Your task to perform on an android device: open app "Instagram" (install if not already installed), go to login, and select forgot password Image 0: 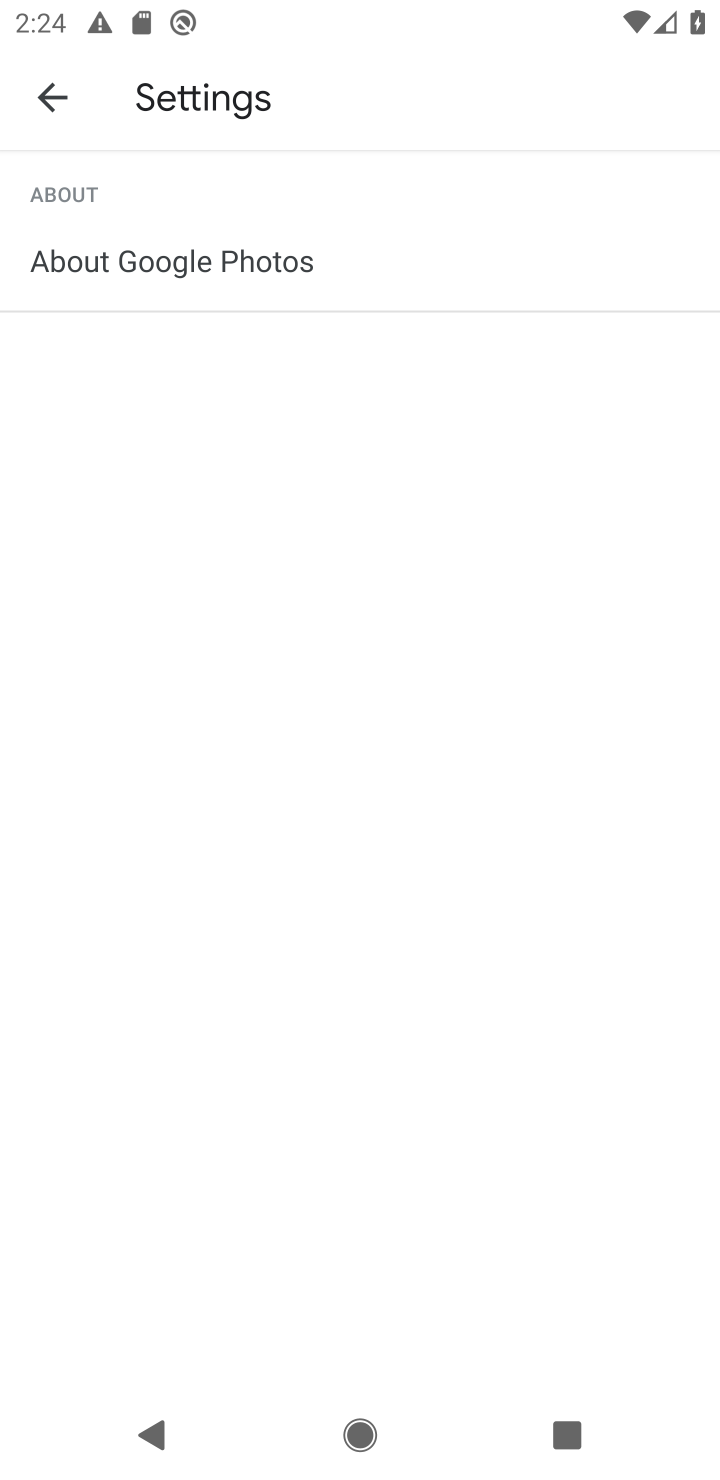
Step 0: press home button
Your task to perform on an android device: open app "Instagram" (install if not already installed), go to login, and select forgot password Image 1: 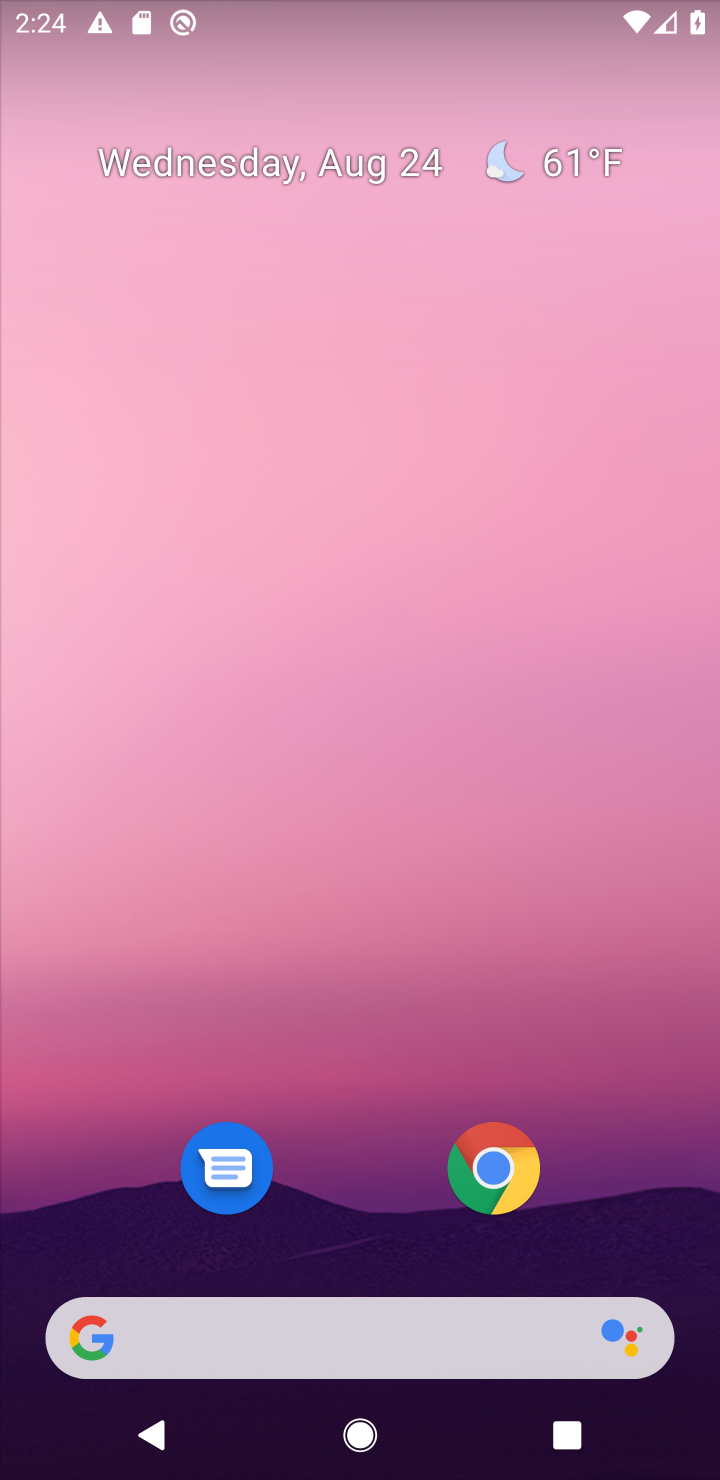
Step 1: drag from (611, 808) to (568, 175)
Your task to perform on an android device: open app "Instagram" (install if not already installed), go to login, and select forgot password Image 2: 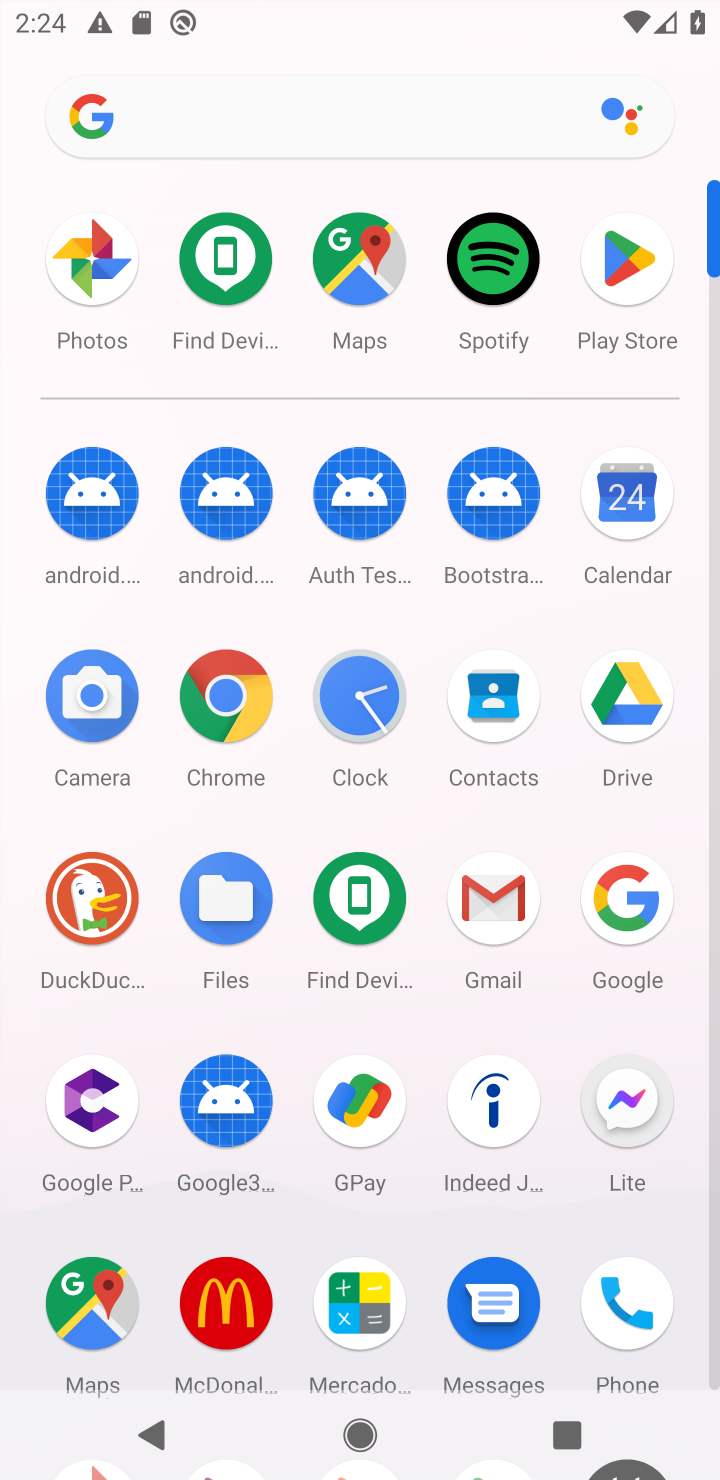
Step 2: click (719, 1346)
Your task to perform on an android device: open app "Instagram" (install if not already installed), go to login, and select forgot password Image 3: 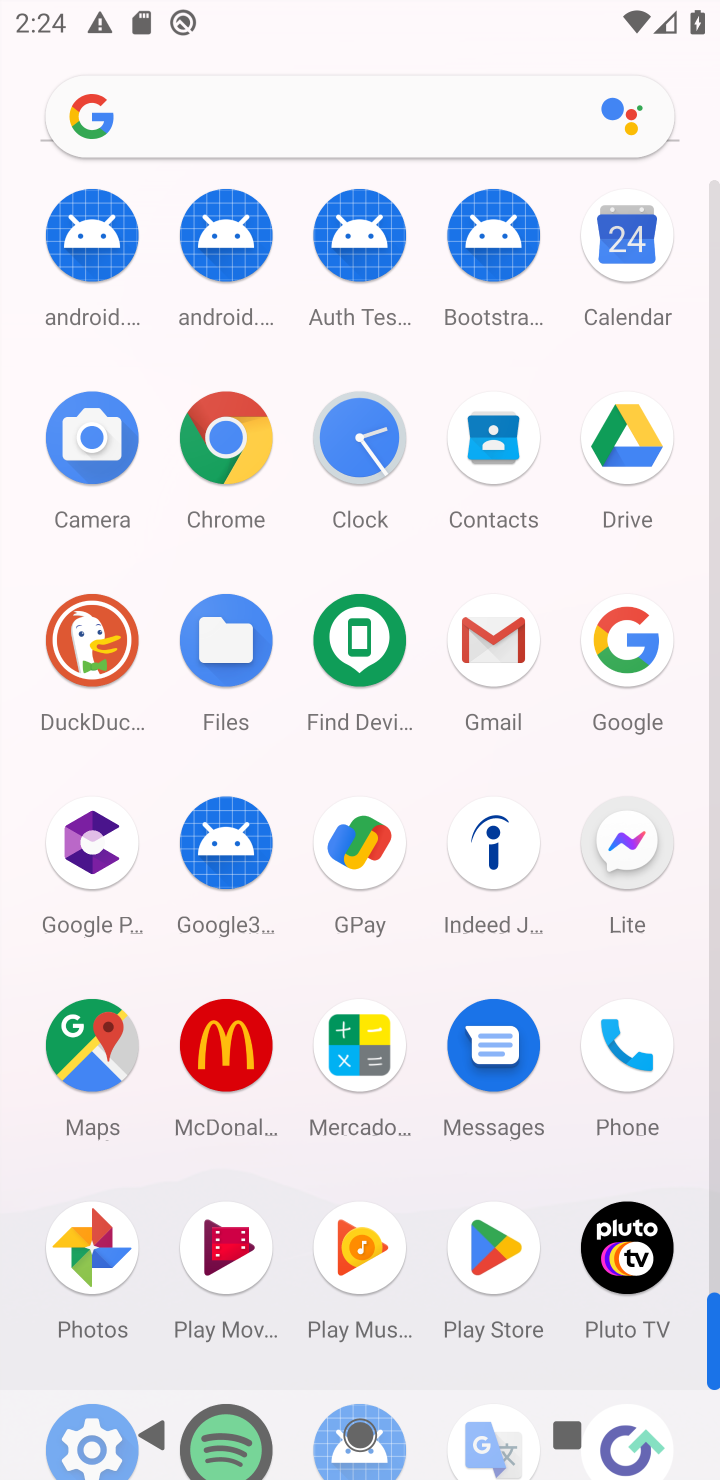
Step 3: click (498, 1247)
Your task to perform on an android device: open app "Instagram" (install if not already installed), go to login, and select forgot password Image 4: 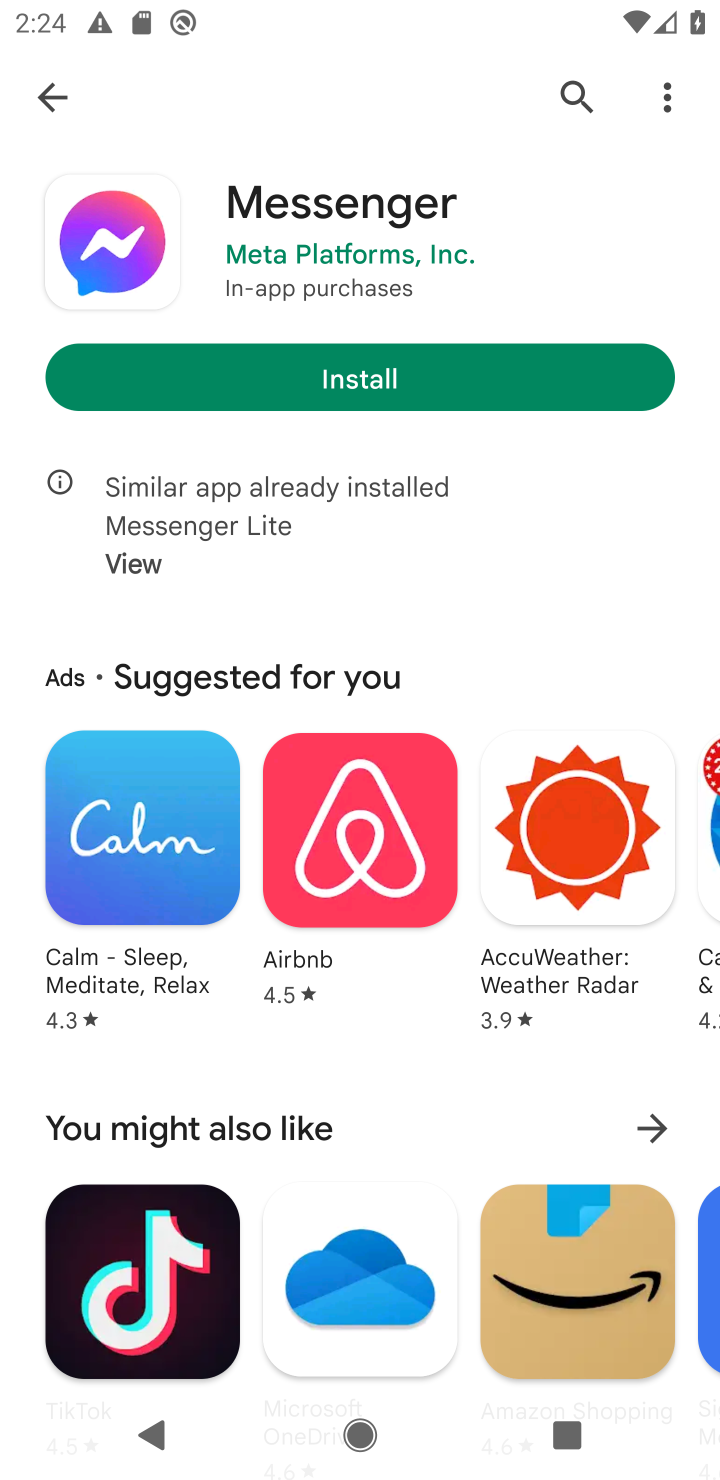
Step 4: click (572, 79)
Your task to perform on an android device: open app "Instagram" (install if not already installed), go to login, and select forgot password Image 5: 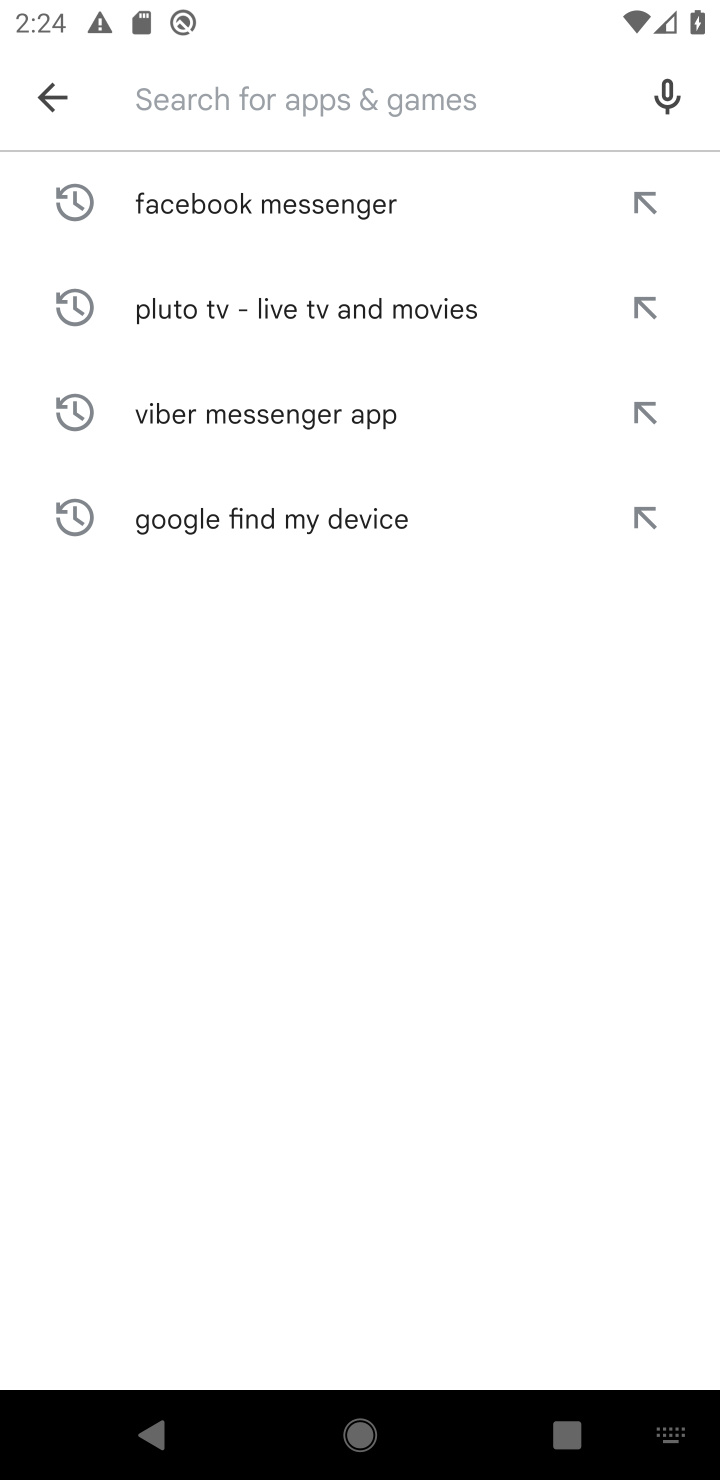
Step 5: type "Instagram"
Your task to perform on an android device: open app "Instagram" (install if not already installed), go to login, and select forgot password Image 6: 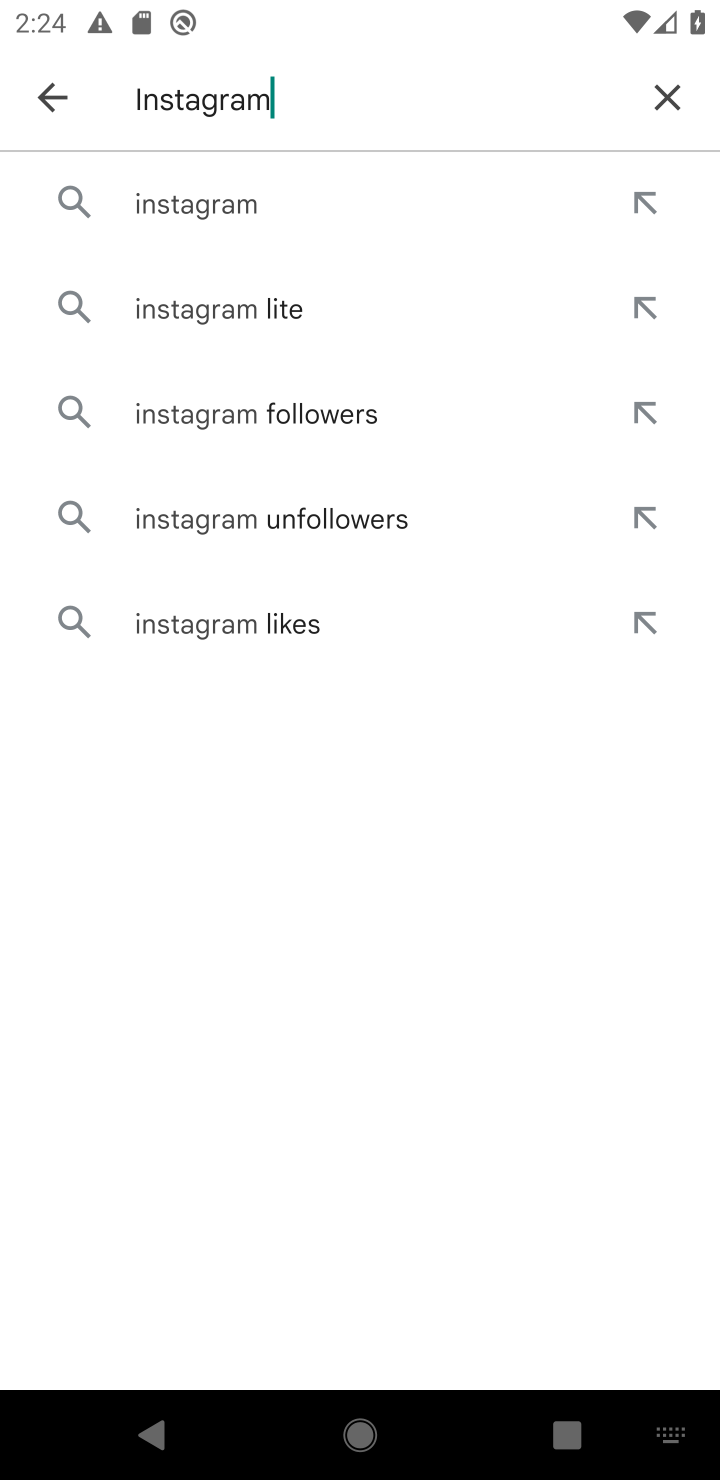
Step 6: click (183, 221)
Your task to perform on an android device: open app "Instagram" (install if not already installed), go to login, and select forgot password Image 7: 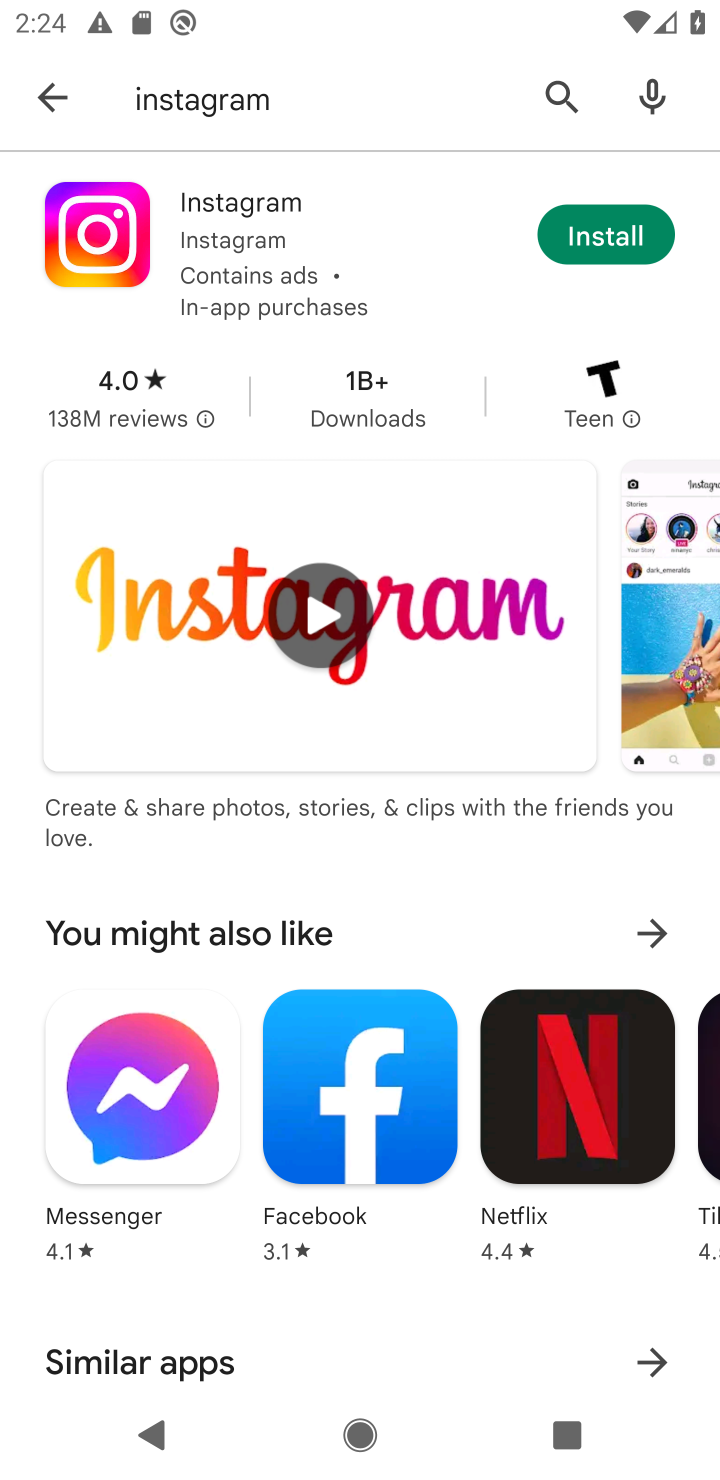
Step 7: click (170, 220)
Your task to perform on an android device: open app "Instagram" (install if not already installed), go to login, and select forgot password Image 8: 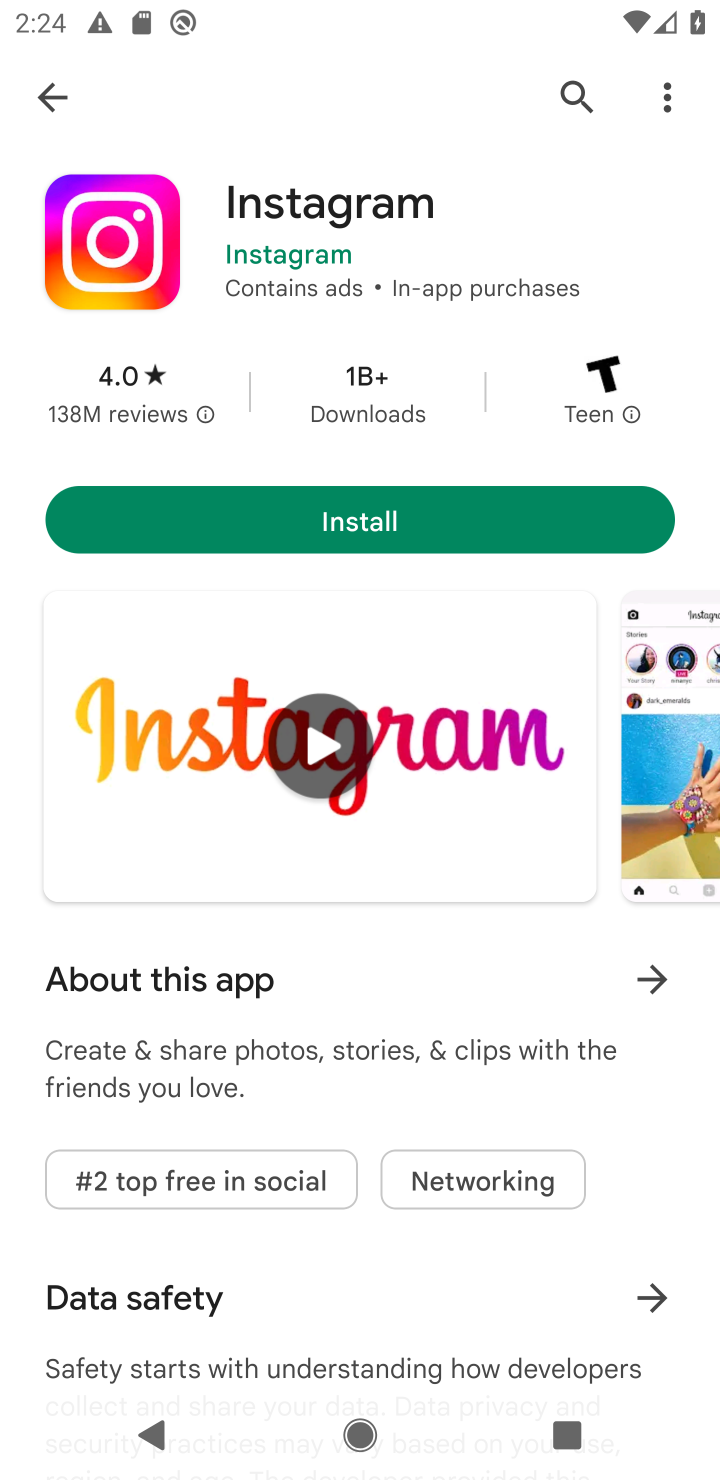
Step 8: click (359, 531)
Your task to perform on an android device: open app "Instagram" (install if not already installed), go to login, and select forgot password Image 9: 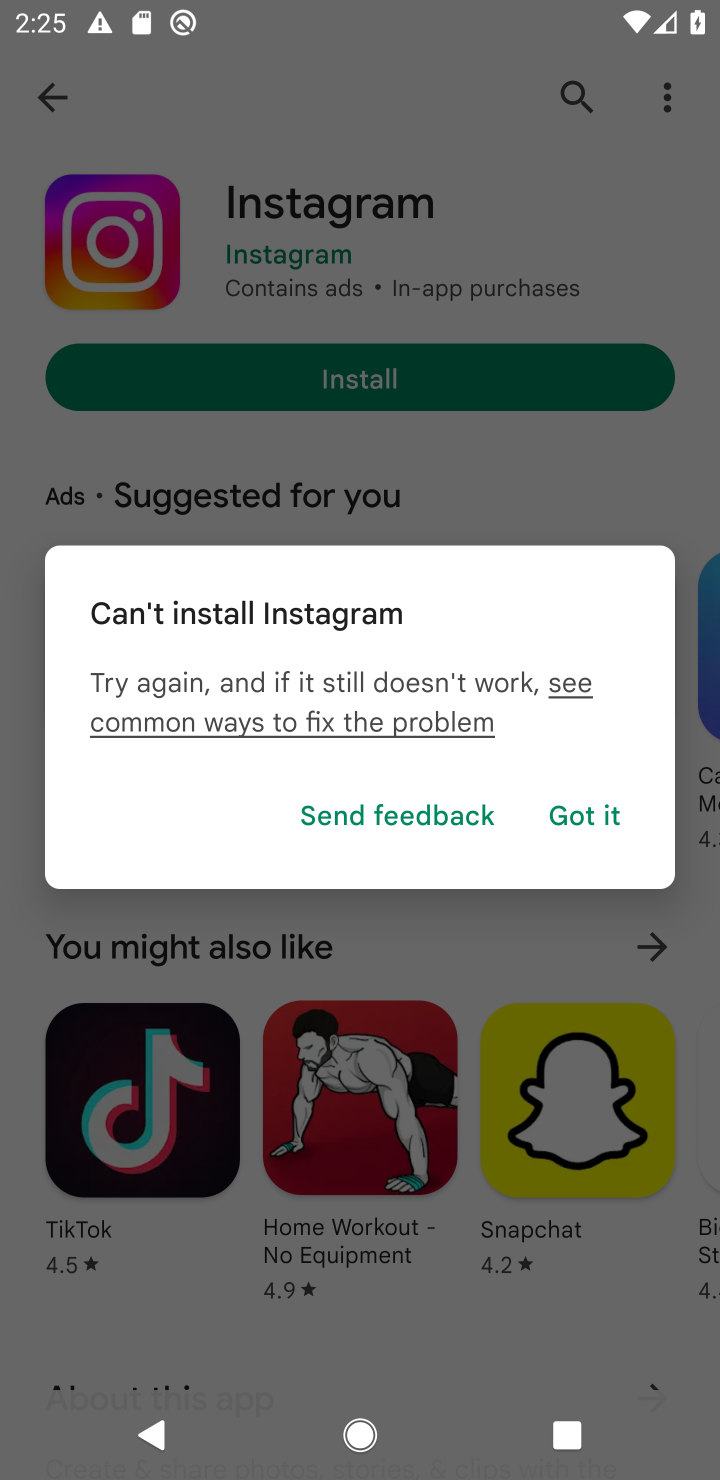
Step 9: click (577, 800)
Your task to perform on an android device: open app "Instagram" (install if not already installed), go to login, and select forgot password Image 10: 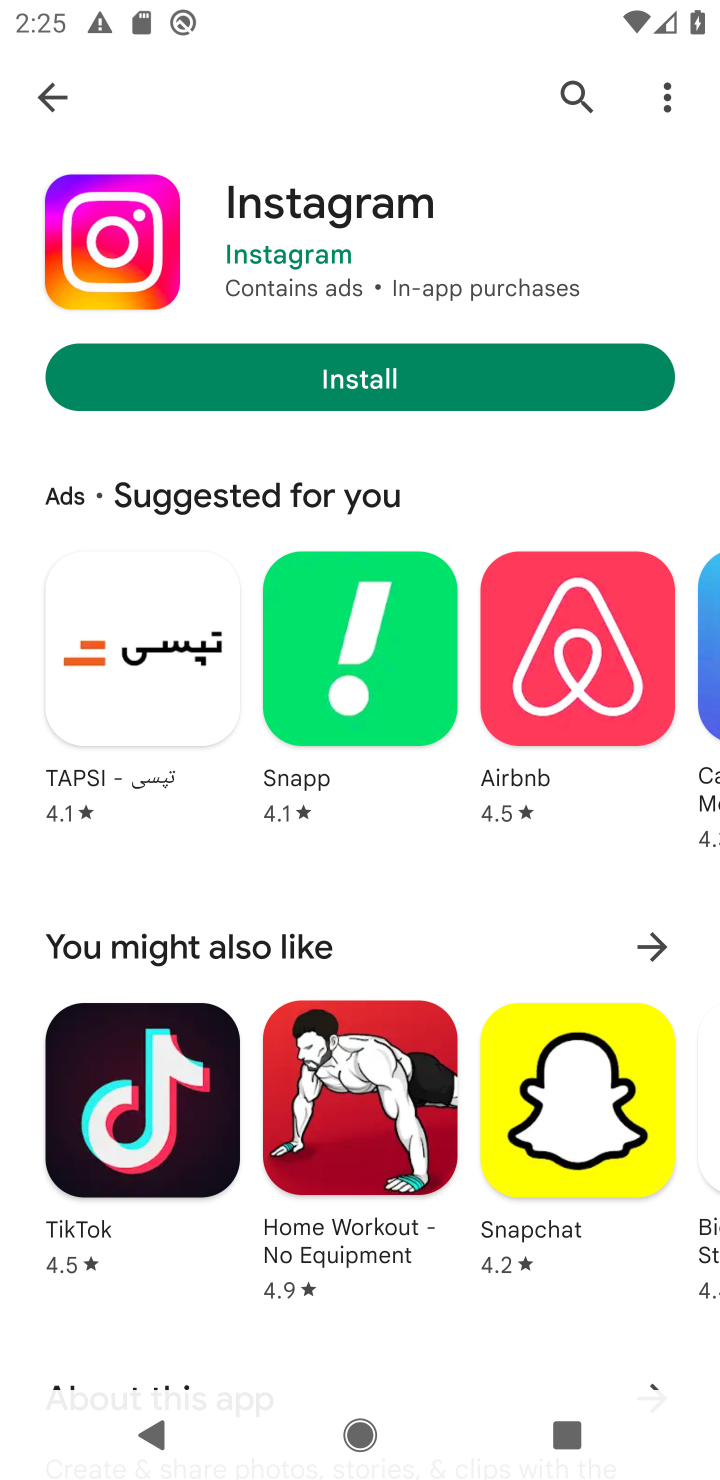
Step 10: task complete